Your task to perform on an android device: Toggle the flashlight Image 0: 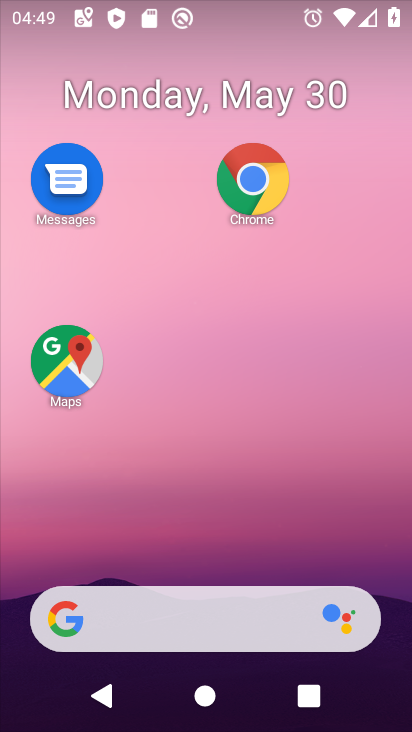
Step 0: drag from (232, 558) to (208, 14)
Your task to perform on an android device: Toggle the flashlight Image 1: 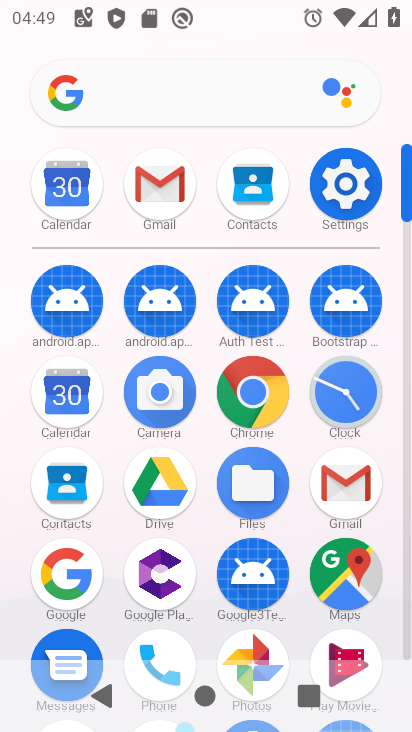
Step 1: task complete